Your task to perform on an android device: Go to CNN.com Image 0: 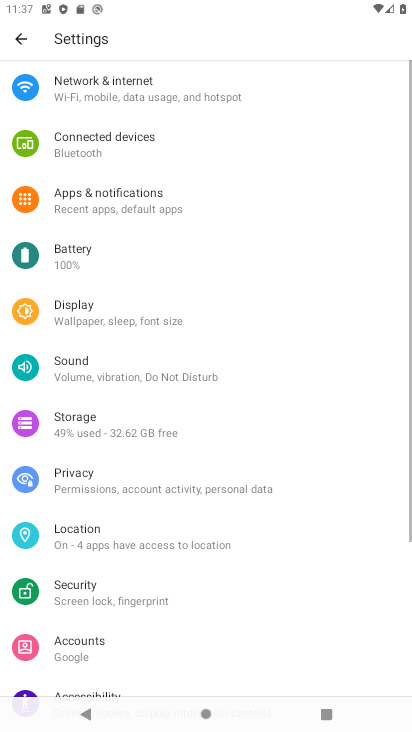
Step 0: press home button
Your task to perform on an android device: Go to CNN.com Image 1: 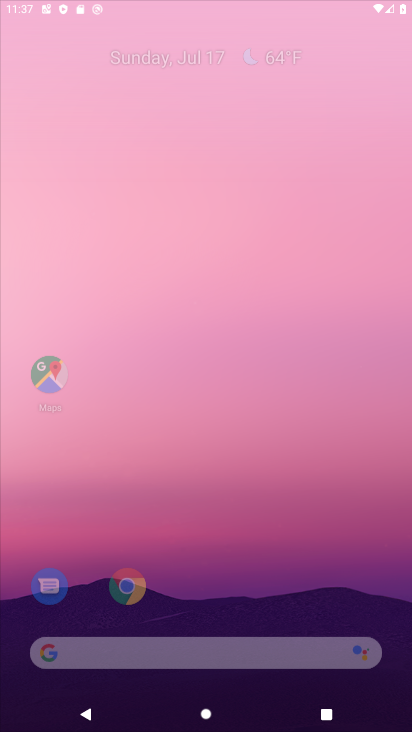
Step 1: drag from (304, 668) to (218, 19)
Your task to perform on an android device: Go to CNN.com Image 2: 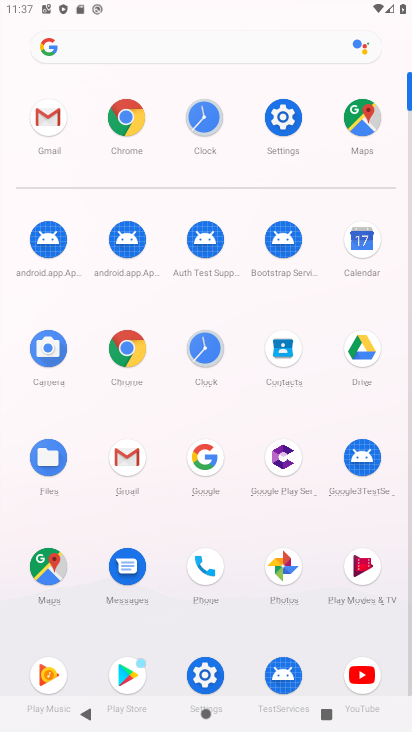
Step 2: click (207, 469)
Your task to perform on an android device: Go to CNN.com Image 3: 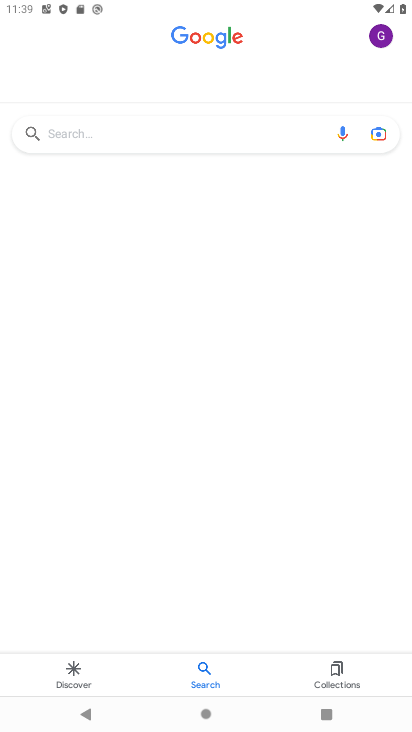
Step 3: press home button
Your task to perform on an android device: Go to CNN.com Image 4: 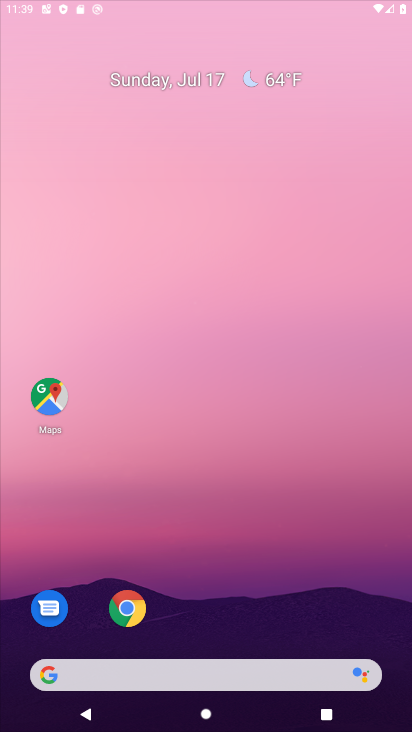
Step 4: drag from (336, 633) to (178, 13)
Your task to perform on an android device: Go to CNN.com Image 5: 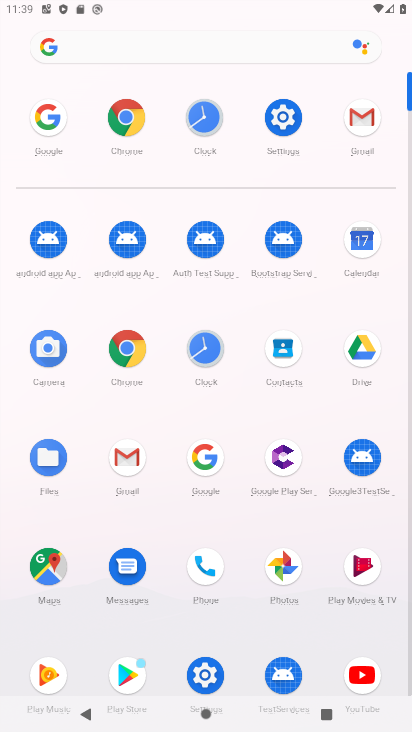
Step 5: click (207, 468)
Your task to perform on an android device: Go to CNN.com Image 6: 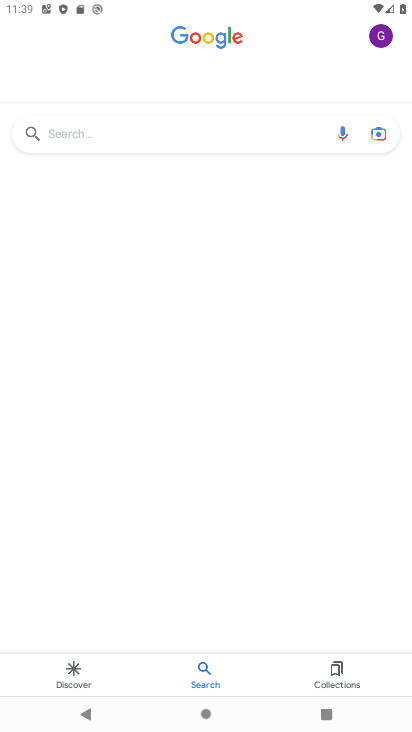
Step 6: click (108, 129)
Your task to perform on an android device: Go to CNN.com Image 7: 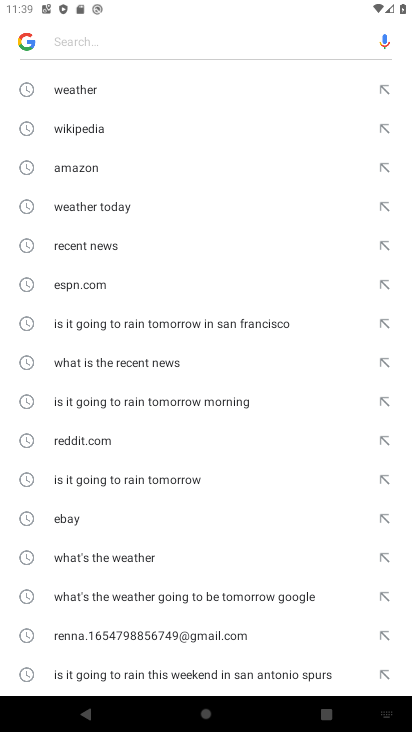
Step 7: type "CNN.com"
Your task to perform on an android device: Go to CNN.com Image 8: 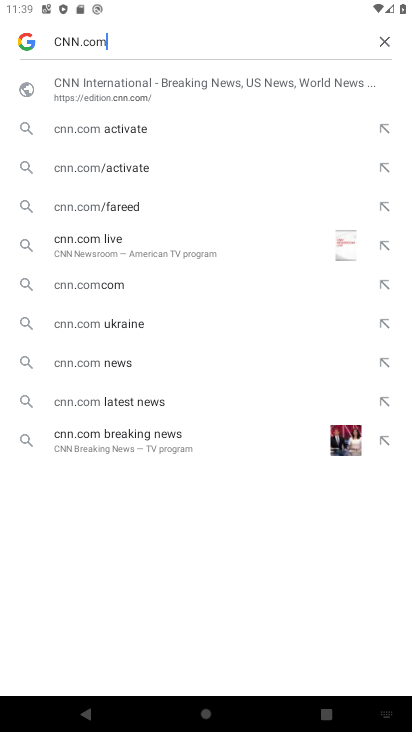
Step 8: click (167, 92)
Your task to perform on an android device: Go to CNN.com Image 9: 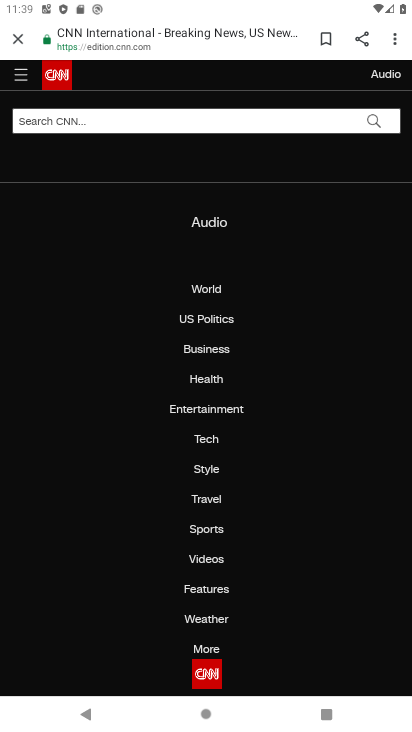
Step 9: task complete